Your task to perform on an android device: Open Chrome and go to settings Image 0: 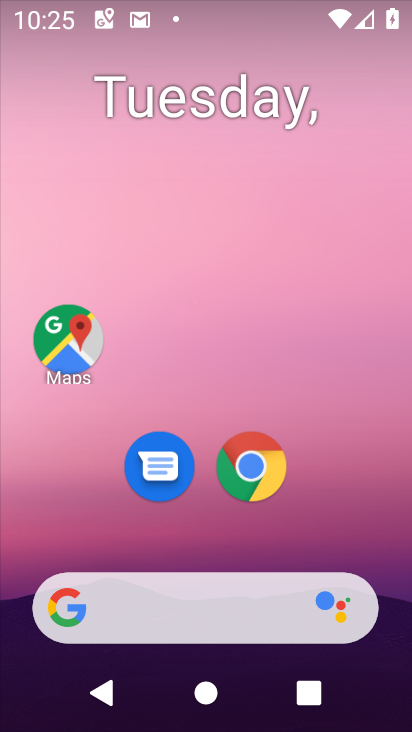
Step 0: drag from (285, 655) to (309, 246)
Your task to perform on an android device: Open Chrome and go to settings Image 1: 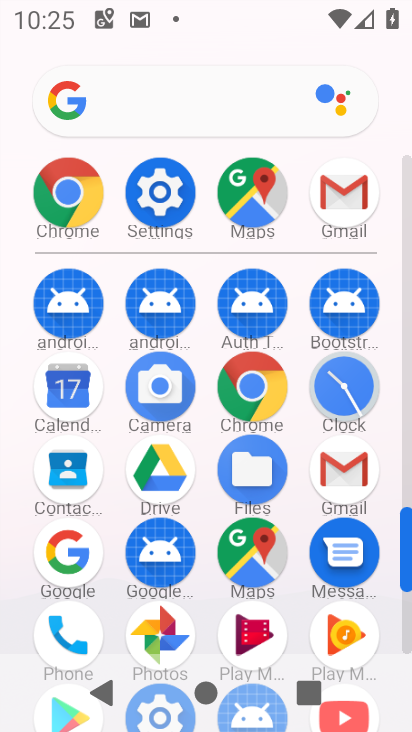
Step 1: click (78, 210)
Your task to perform on an android device: Open Chrome and go to settings Image 2: 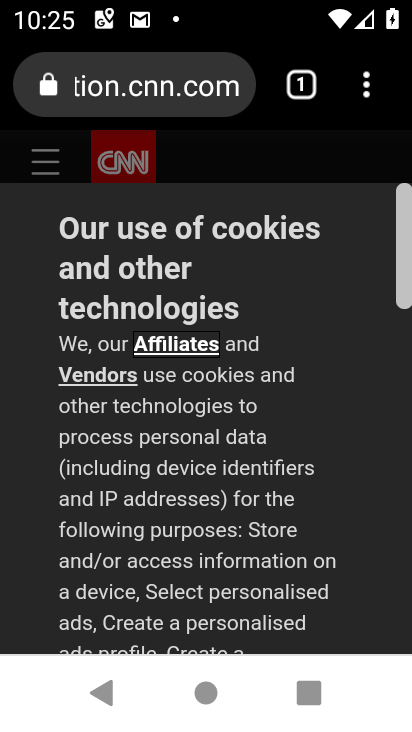
Step 2: click (354, 97)
Your task to perform on an android device: Open Chrome and go to settings Image 3: 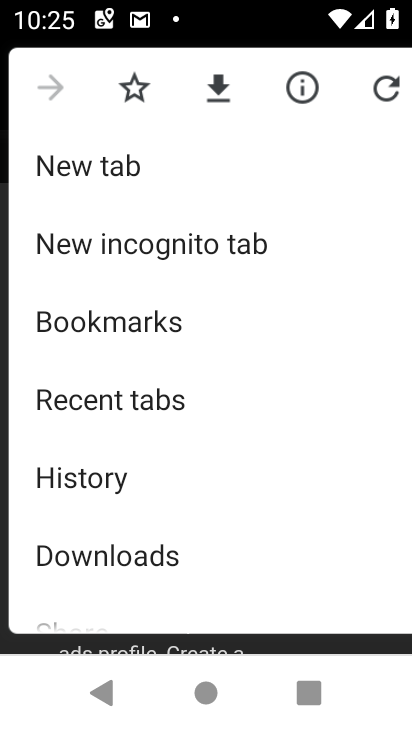
Step 3: drag from (187, 518) to (244, 239)
Your task to perform on an android device: Open Chrome and go to settings Image 4: 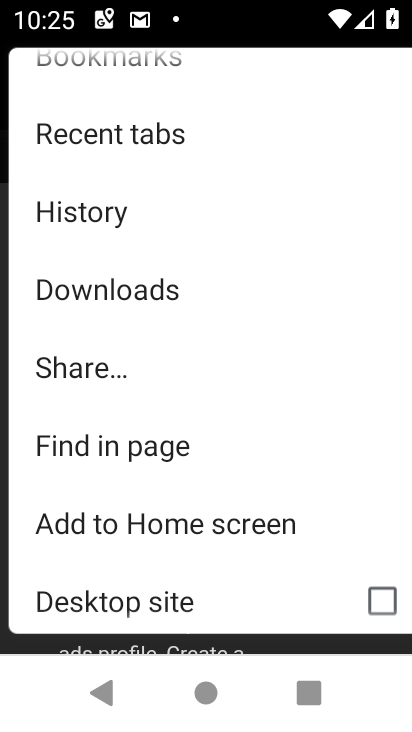
Step 4: drag from (149, 581) to (178, 403)
Your task to perform on an android device: Open Chrome and go to settings Image 5: 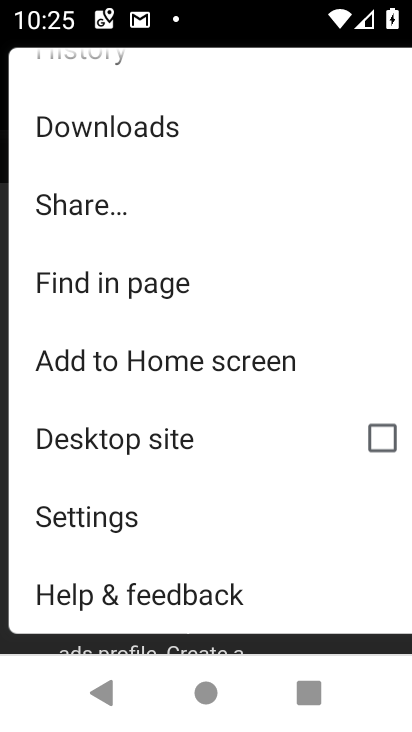
Step 5: click (134, 510)
Your task to perform on an android device: Open Chrome and go to settings Image 6: 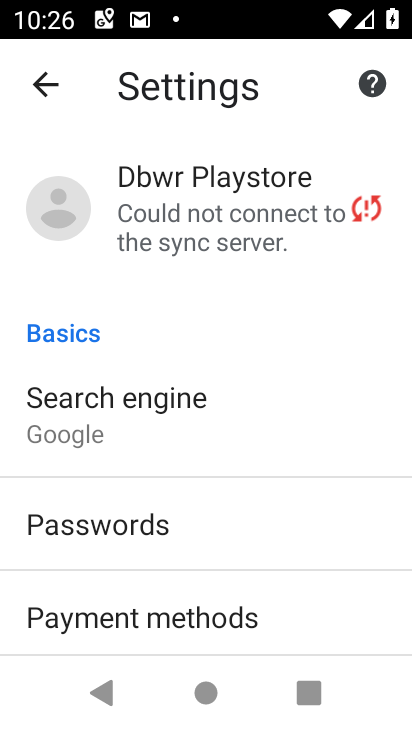
Step 6: task complete